Your task to perform on an android device: When is my next appointment? Image 0: 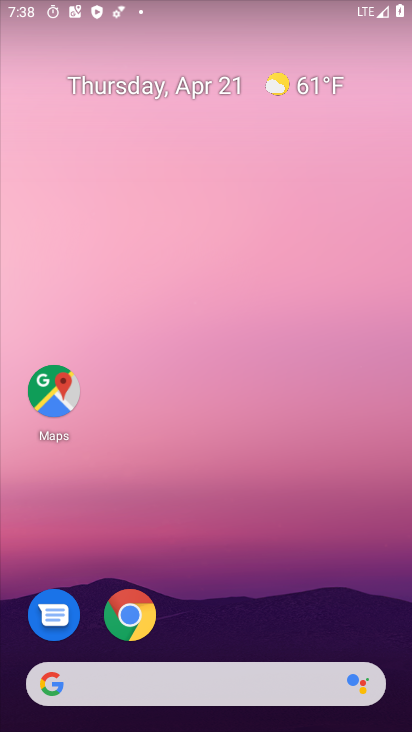
Step 0: drag from (211, 630) to (316, 209)
Your task to perform on an android device: When is my next appointment? Image 1: 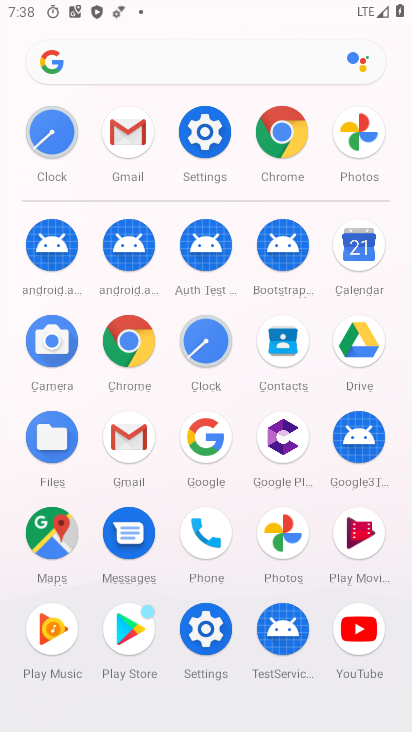
Step 1: click (363, 233)
Your task to perform on an android device: When is my next appointment? Image 2: 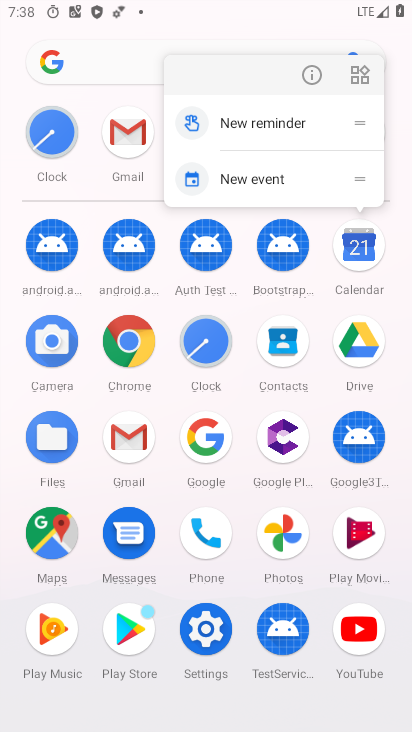
Step 2: click (316, 75)
Your task to perform on an android device: When is my next appointment? Image 3: 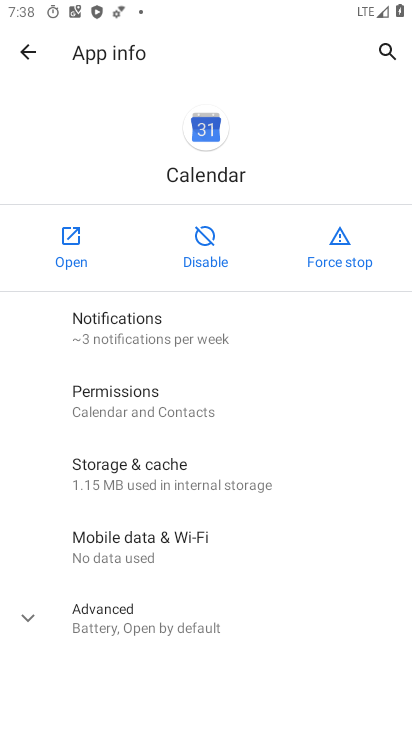
Step 3: click (75, 280)
Your task to perform on an android device: When is my next appointment? Image 4: 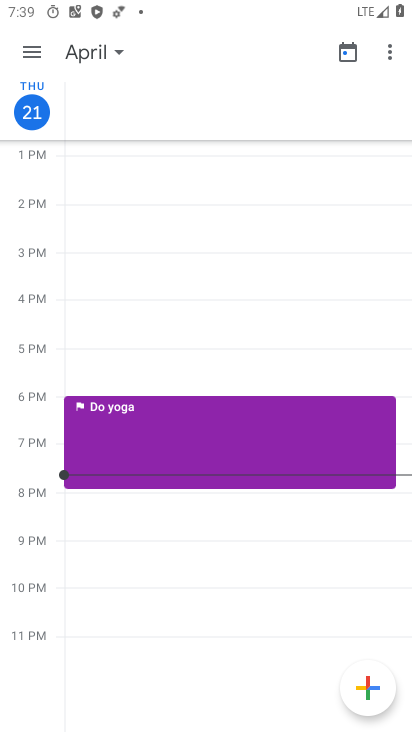
Step 4: task complete